Your task to perform on an android device: turn off location Image 0: 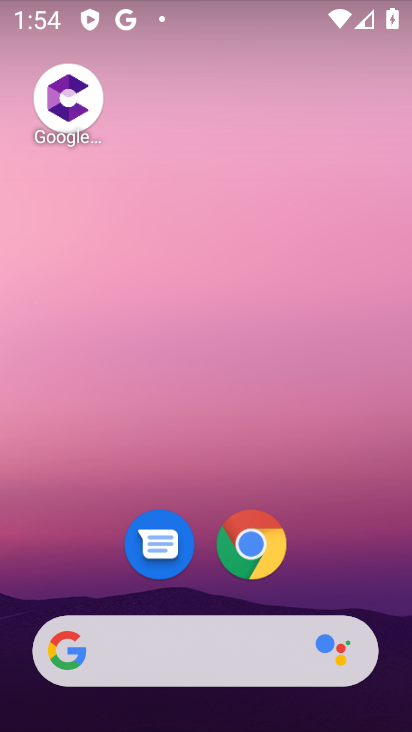
Step 0: drag from (222, 592) to (228, 228)
Your task to perform on an android device: turn off location Image 1: 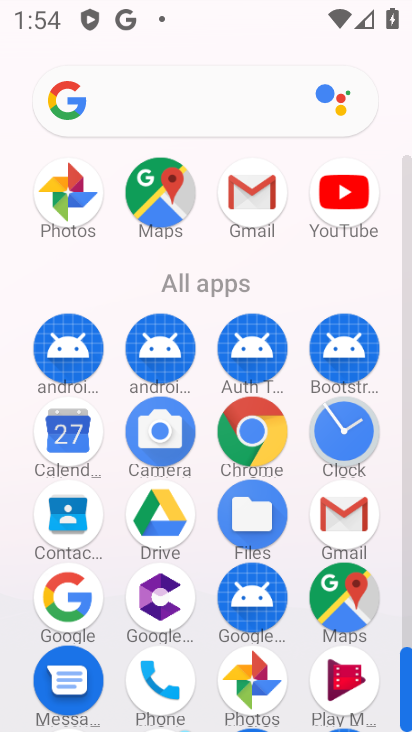
Step 1: drag from (209, 545) to (227, 248)
Your task to perform on an android device: turn off location Image 2: 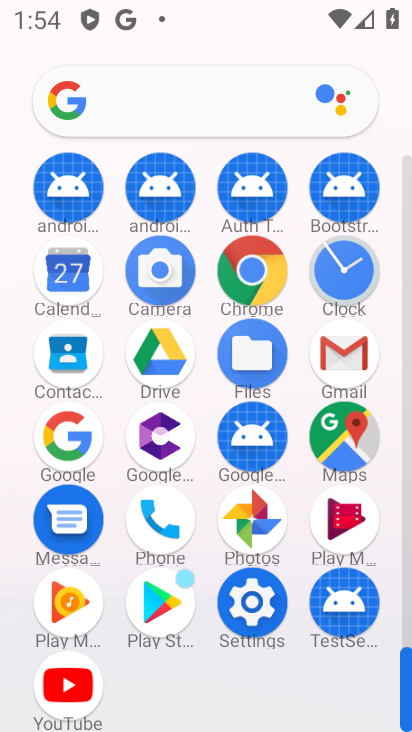
Step 2: click (235, 593)
Your task to perform on an android device: turn off location Image 3: 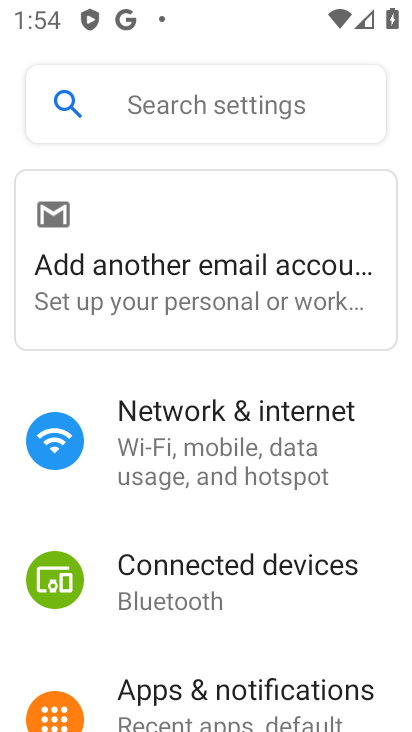
Step 3: drag from (239, 625) to (271, 291)
Your task to perform on an android device: turn off location Image 4: 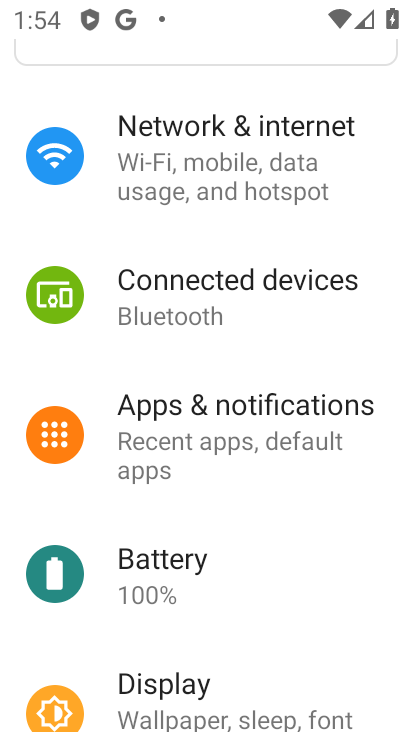
Step 4: drag from (245, 598) to (301, 339)
Your task to perform on an android device: turn off location Image 5: 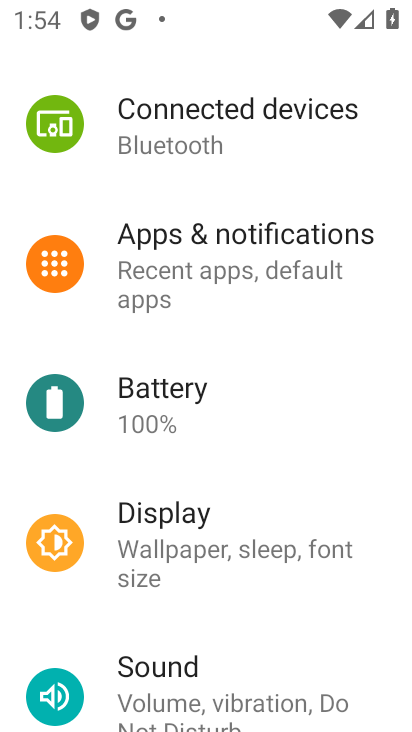
Step 5: drag from (223, 591) to (276, 337)
Your task to perform on an android device: turn off location Image 6: 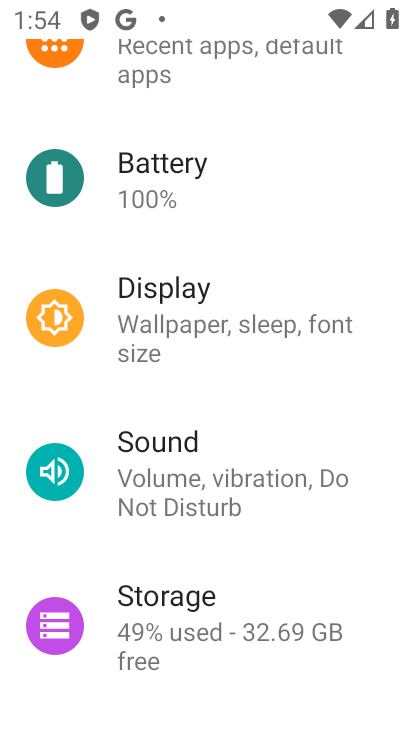
Step 6: drag from (251, 560) to (285, 267)
Your task to perform on an android device: turn off location Image 7: 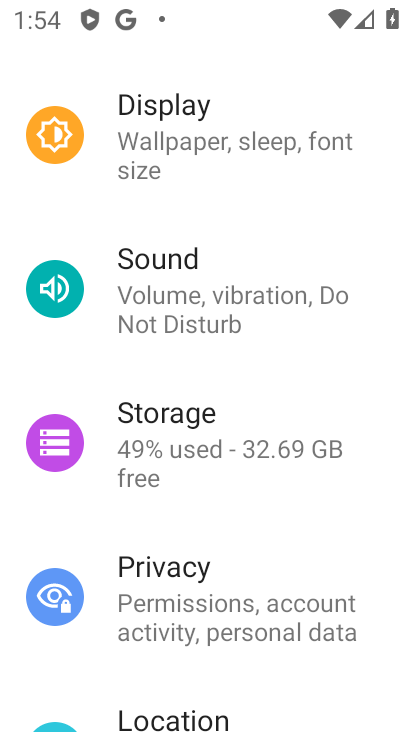
Step 7: drag from (213, 619) to (274, 409)
Your task to perform on an android device: turn off location Image 8: 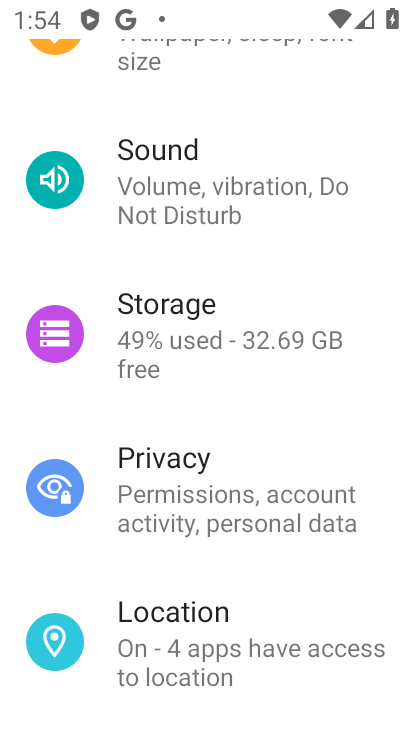
Step 8: click (214, 630)
Your task to perform on an android device: turn off location Image 9: 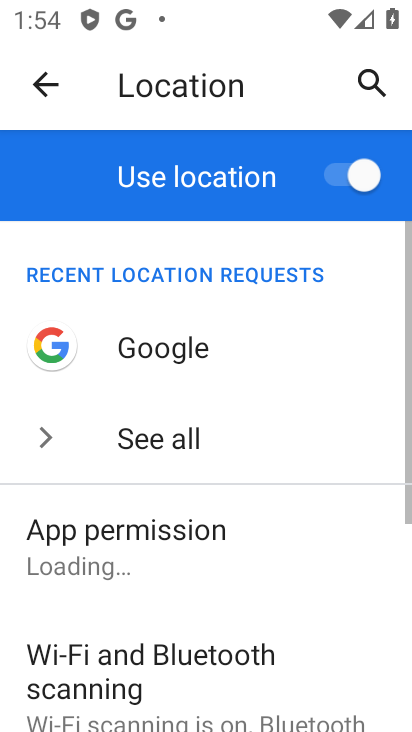
Step 9: drag from (209, 623) to (268, 316)
Your task to perform on an android device: turn off location Image 10: 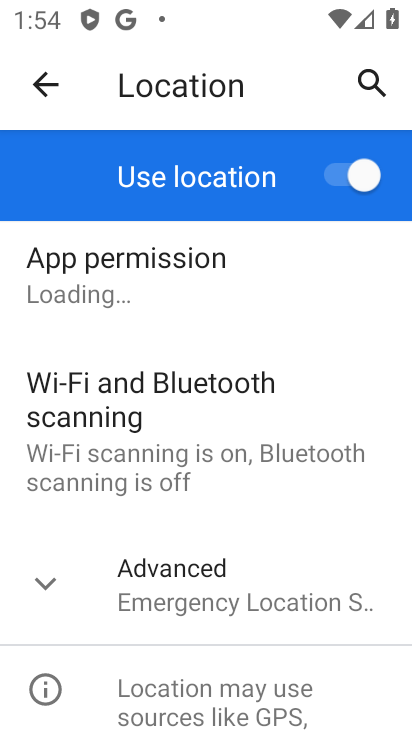
Step 10: click (328, 172)
Your task to perform on an android device: turn off location Image 11: 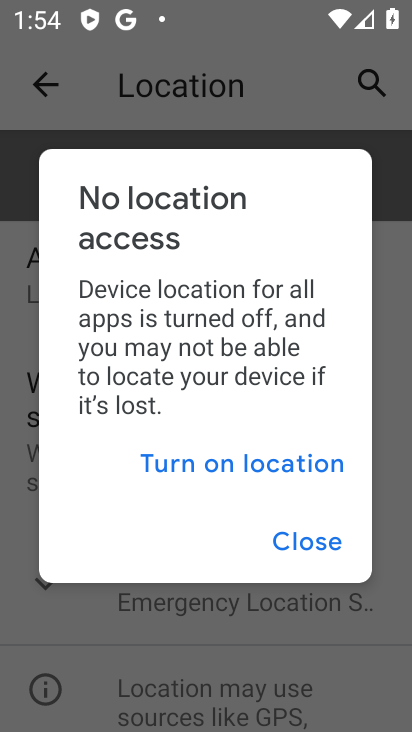
Step 11: task complete